Your task to perform on an android device: Go to eBay Image 0: 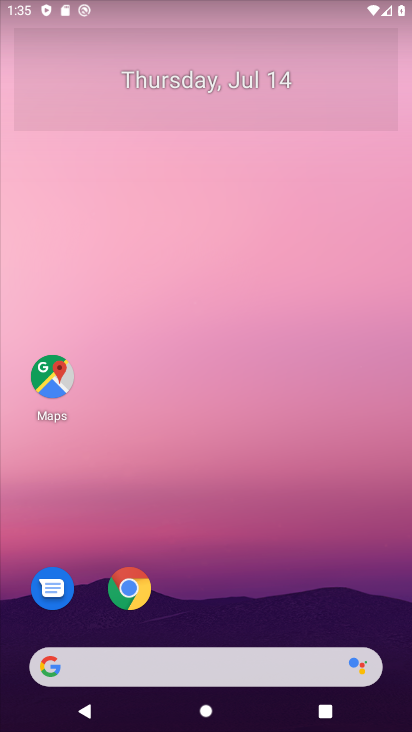
Step 0: click (289, 670)
Your task to perform on an android device: Go to eBay Image 1: 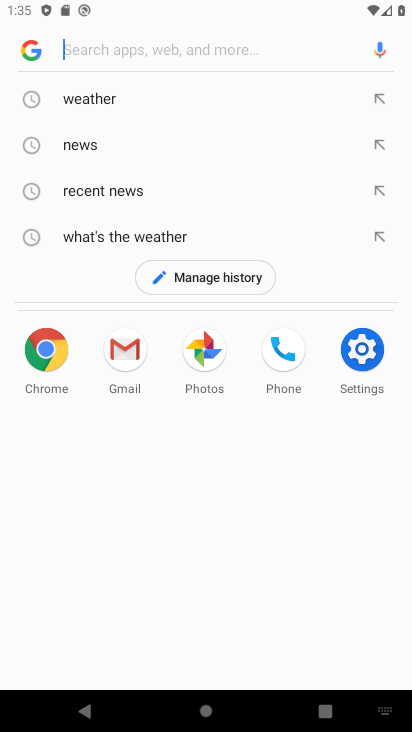
Step 1: type "ebay"
Your task to perform on an android device: Go to eBay Image 2: 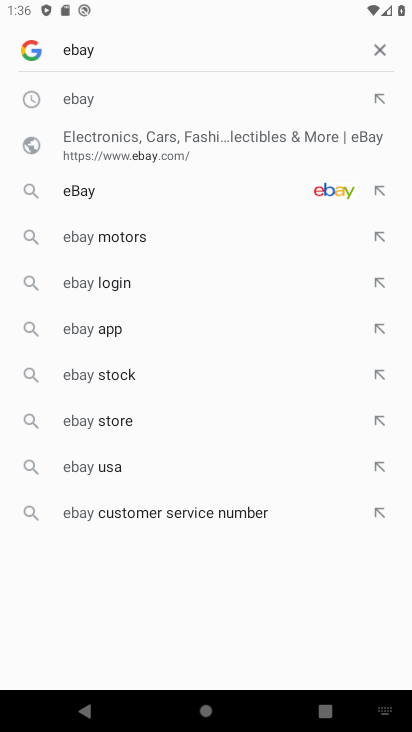
Step 2: click (182, 91)
Your task to perform on an android device: Go to eBay Image 3: 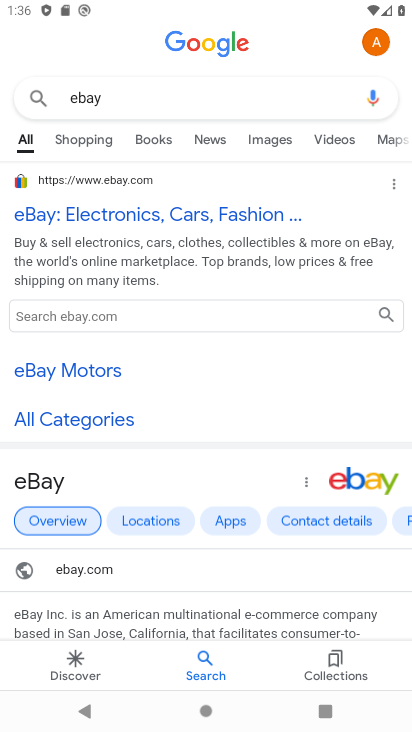
Step 3: click (174, 198)
Your task to perform on an android device: Go to eBay Image 4: 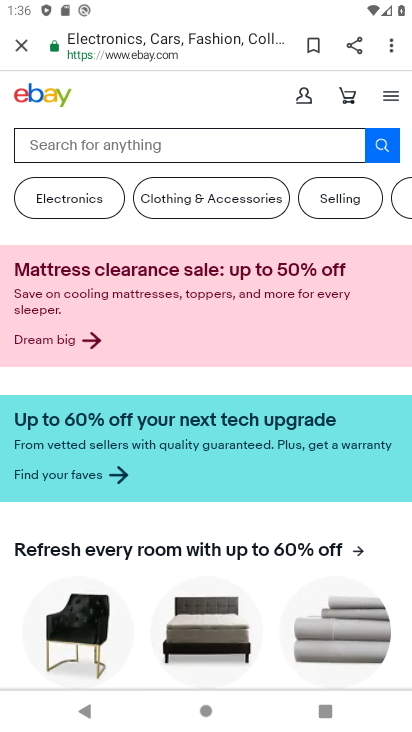
Step 4: task complete